Your task to perform on an android device: What's on my calendar today? Image 0: 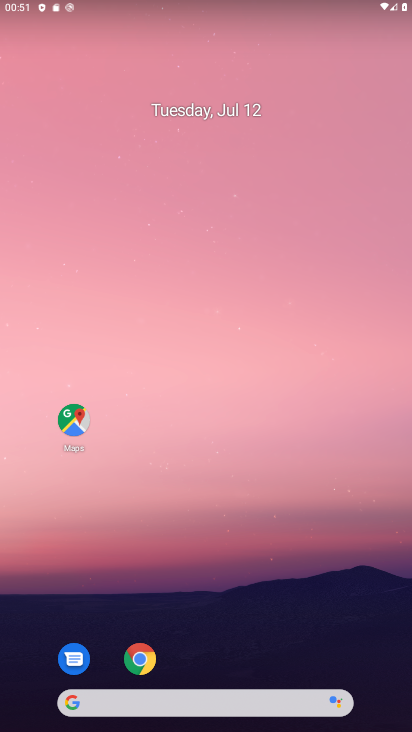
Step 0: drag from (207, 583) to (207, 10)
Your task to perform on an android device: What's on my calendar today? Image 1: 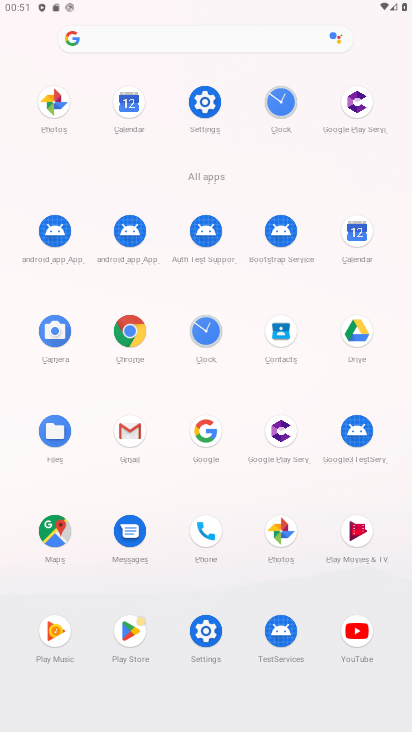
Step 1: click (348, 234)
Your task to perform on an android device: What's on my calendar today? Image 2: 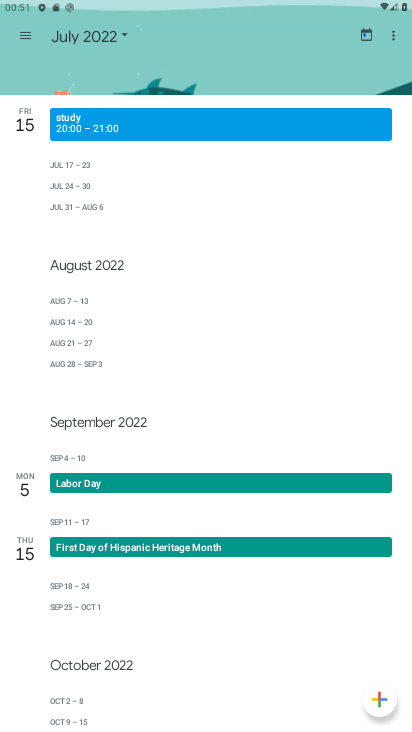
Step 2: drag from (199, 546) to (180, 238)
Your task to perform on an android device: What's on my calendar today? Image 3: 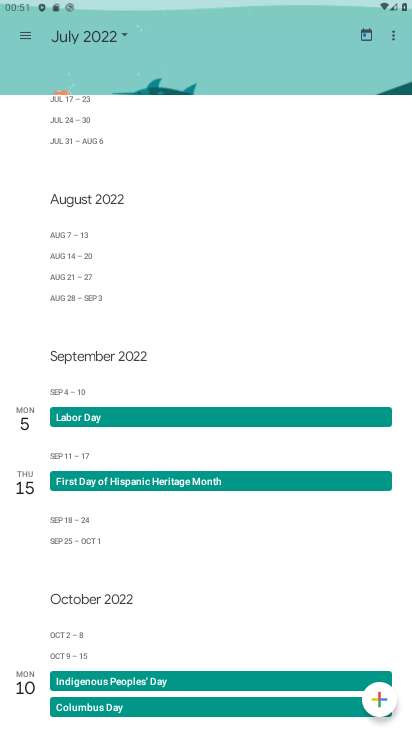
Step 3: drag from (197, 220) to (216, 672)
Your task to perform on an android device: What's on my calendar today? Image 4: 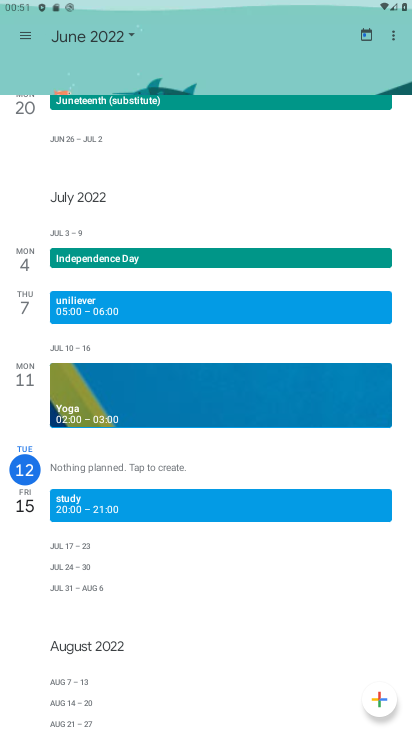
Step 4: drag from (157, 548) to (207, 302)
Your task to perform on an android device: What's on my calendar today? Image 5: 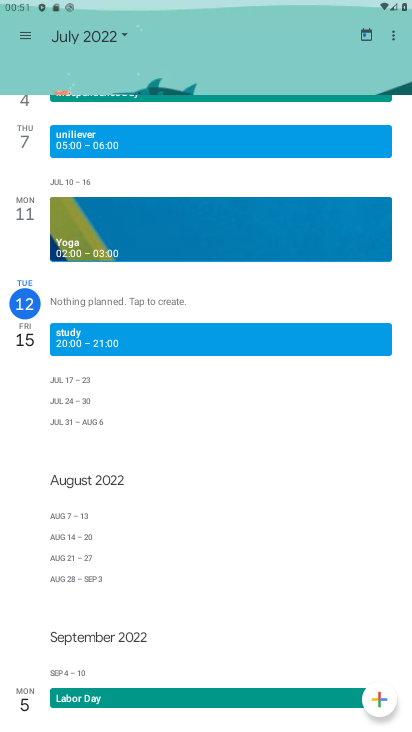
Step 5: click (111, 35)
Your task to perform on an android device: What's on my calendar today? Image 6: 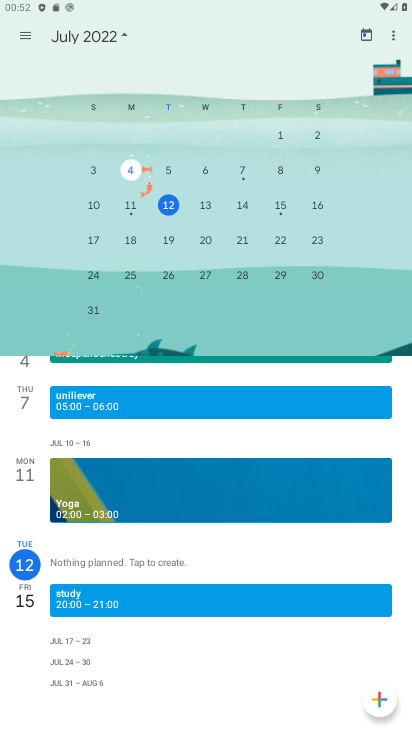
Step 6: click (129, 207)
Your task to perform on an android device: What's on my calendar today? Image 7: 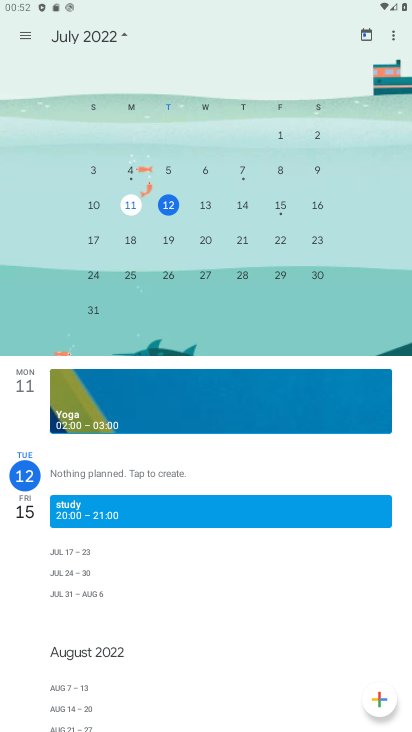
Step 7: click (166, 204)
Your task to perform on an android device: What's on my calendar today? Image 8: 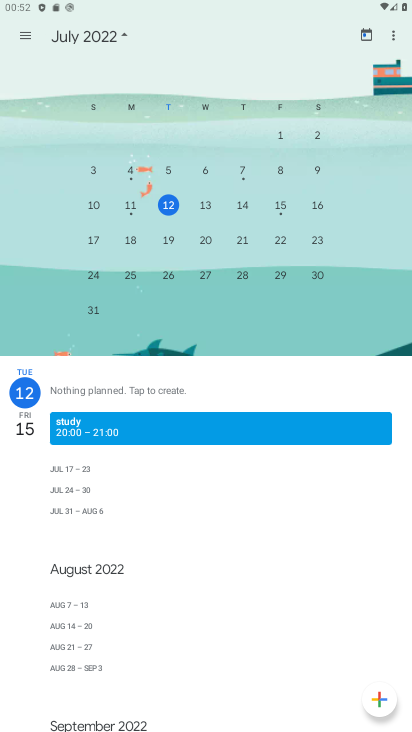
Step 8: task complete